Your task to perform on an android device: Open my contact list Image 0: 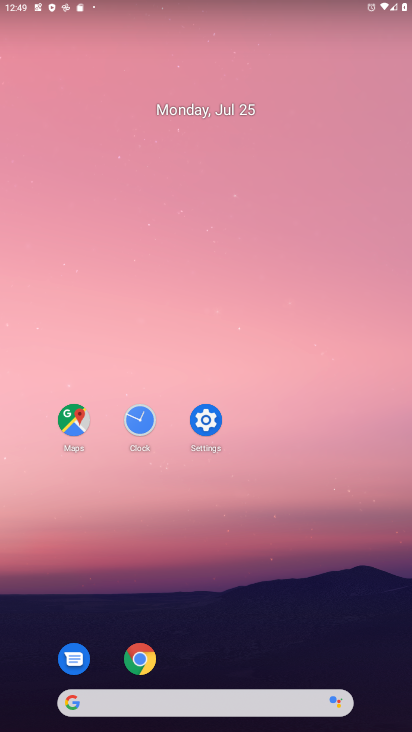
Step 0: drag from (374, 687) to (338, 146)
Your task to perform on an android device: Open my contact list Image 1: 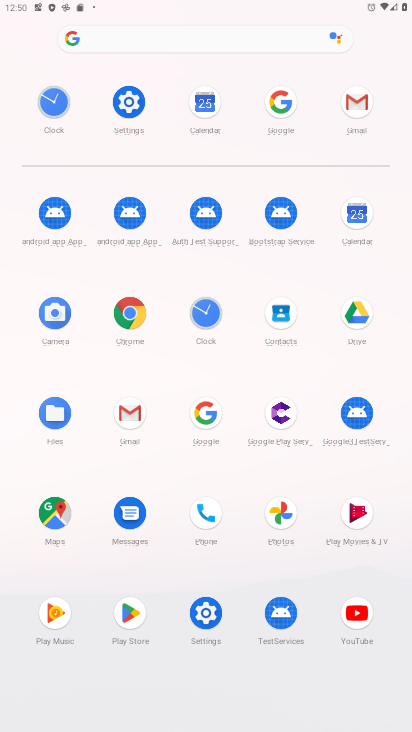
Step 1: click (280, 313)
Your task to perform on an android device: Open my contact list Image 2: 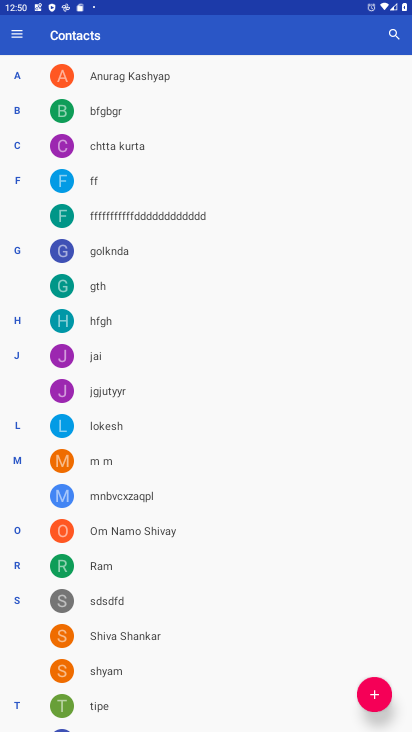
Step 2: task complete